Your task to perform on an android device: check battery use Image 0: 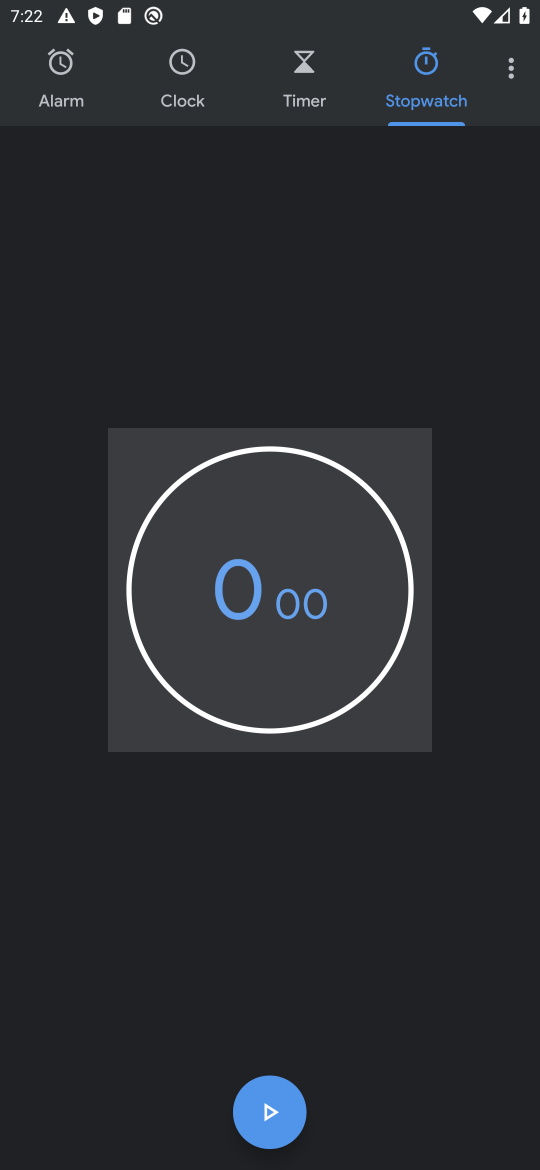
Step 0: press home button
Your task to perform on an android device: check battery use Image 1: 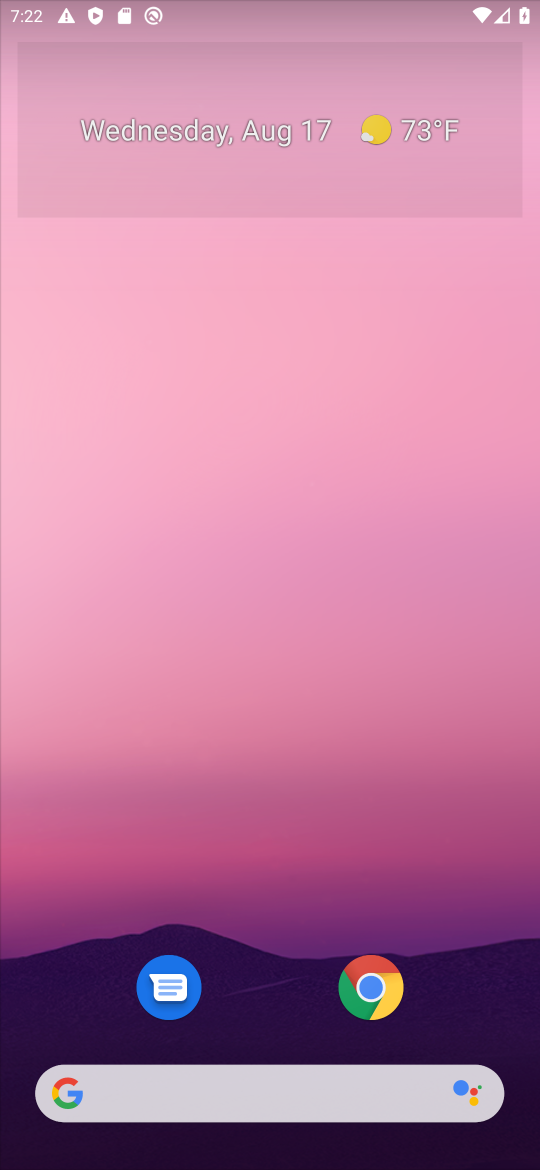
Step 1: drag from (508, 999) to (217, 14)
Your task to perform on an android device: check battery use Image 2: 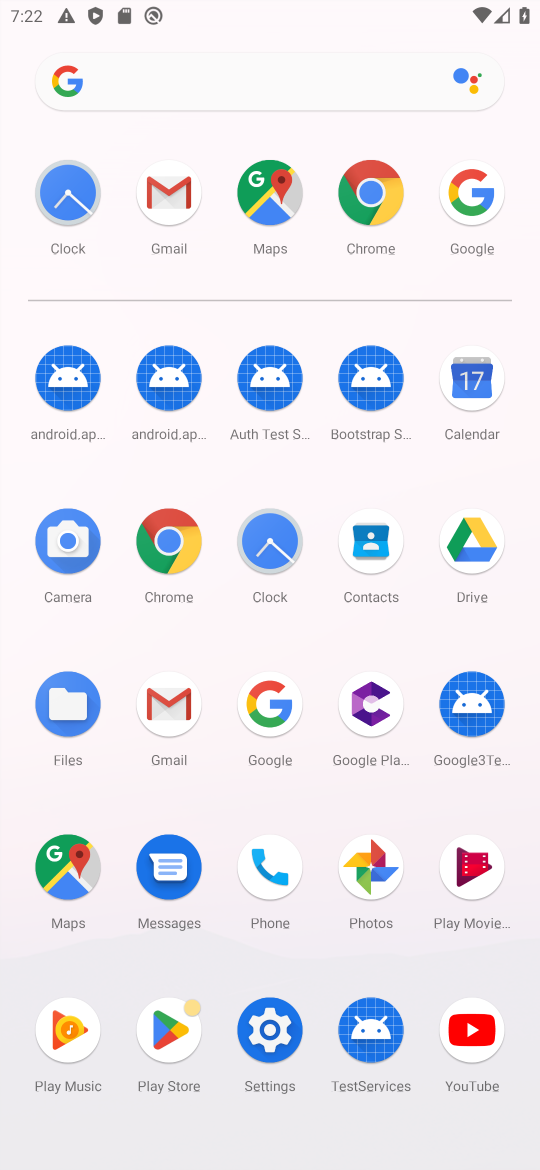
Step 2: click (260, 1039)
Your task to perform on an android device: check battery use Image 3: 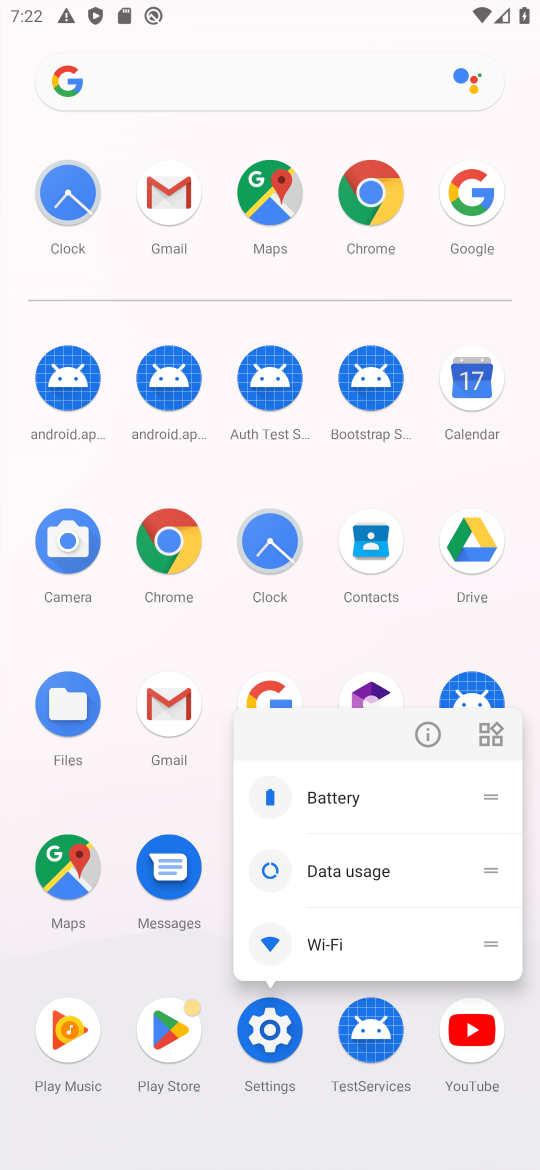
Step 3: click (263, 1026)
Your task to perform on an android device: check battery use Image 4: 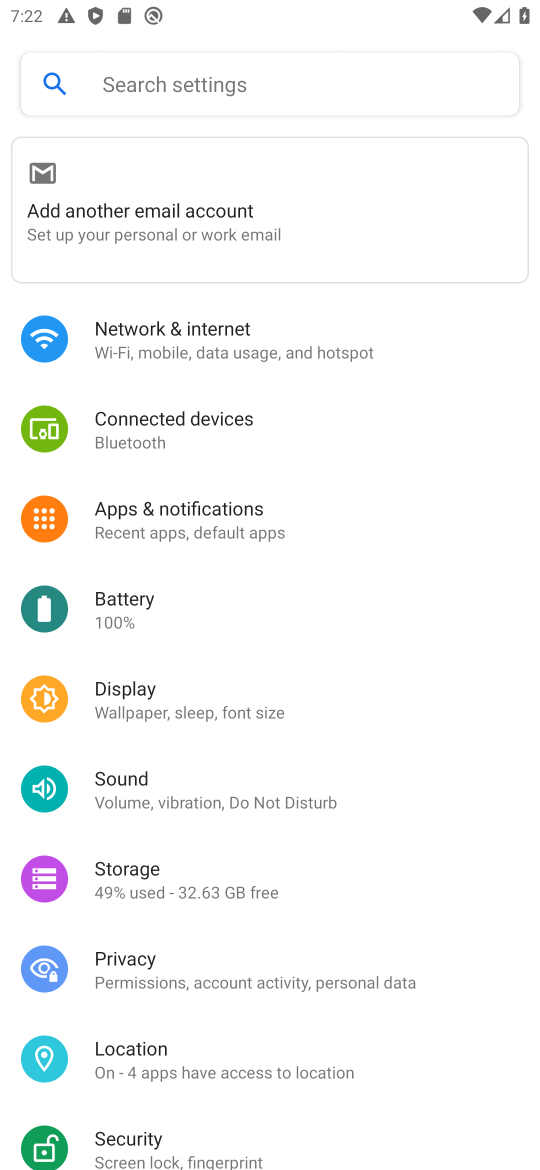
Step 4: click (163, 637)
Your task to perform on an android device: check battery use Image 5: 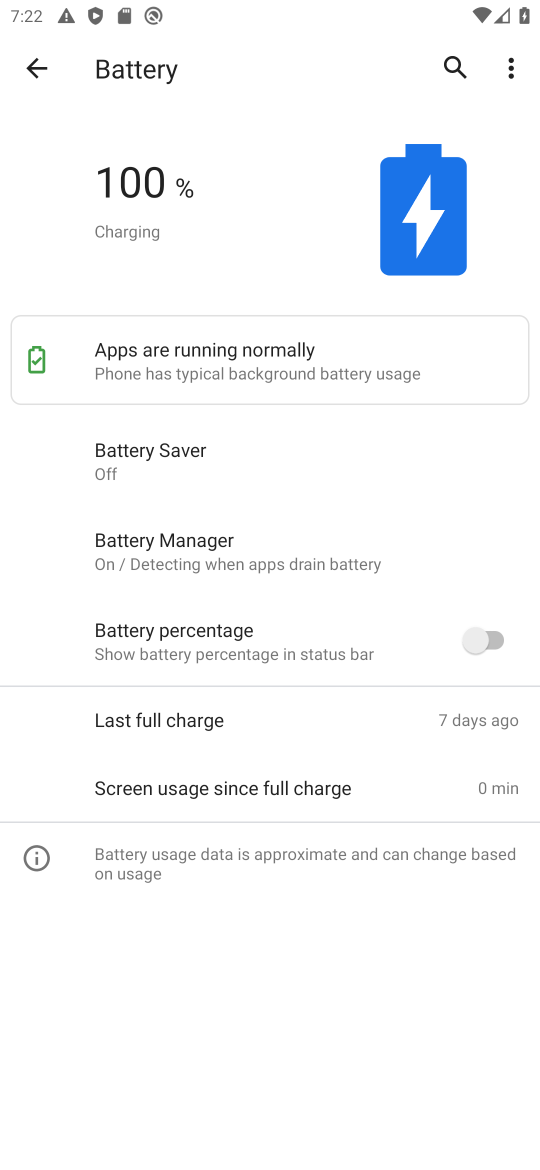
Step 5: click (511, 62)
Your task to perform on an android device: check battery use Image 6: 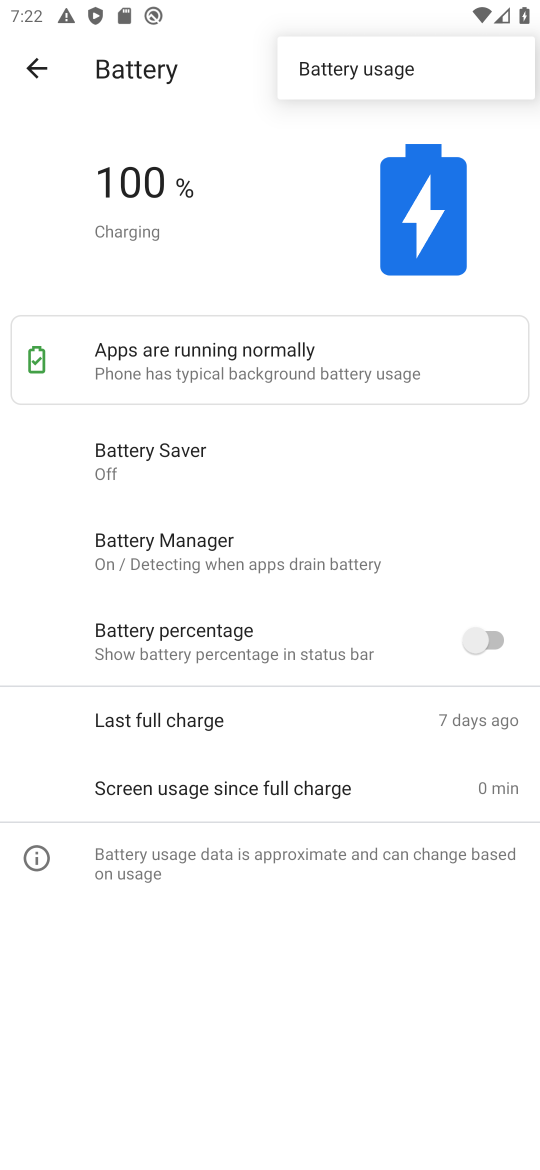
Step 6: click (375, 63)
Your task to perform on an android device: check battery use Image 7: 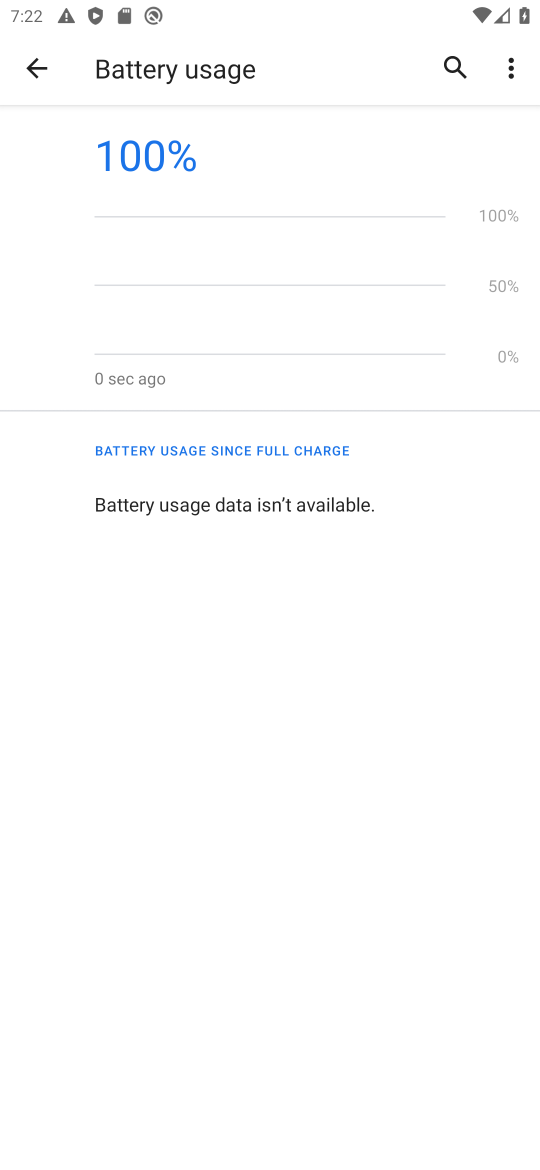
Step 7: task complete